Your task to perform on an android device: turn off wifi Image 0: 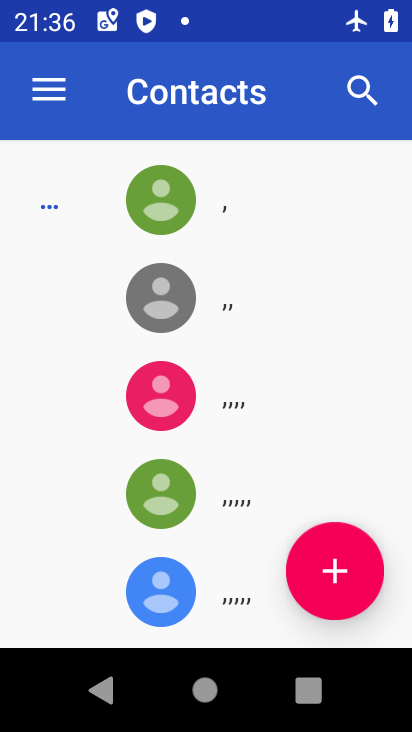
Step 0: press home button
Your task to perform on an android device: turn off wifi Image 1: 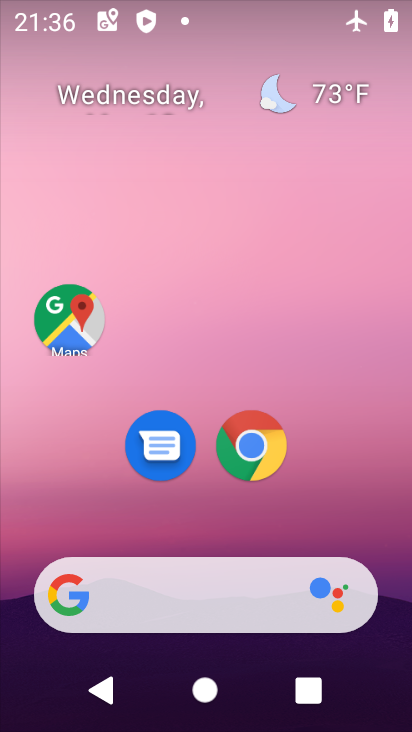
Step 1: drag from (236, 483) to (261, 128)
Your task to perform on an android device: turn off wifi Image 2: 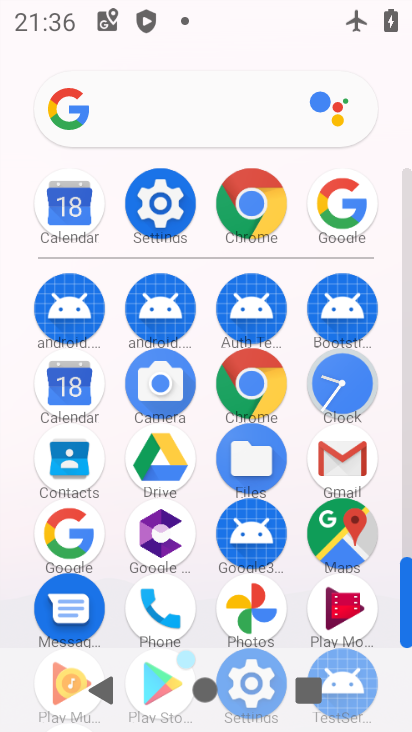
Step 2: click (151, 203)
Your task to perform on an android device: turn off wifi Image 3: 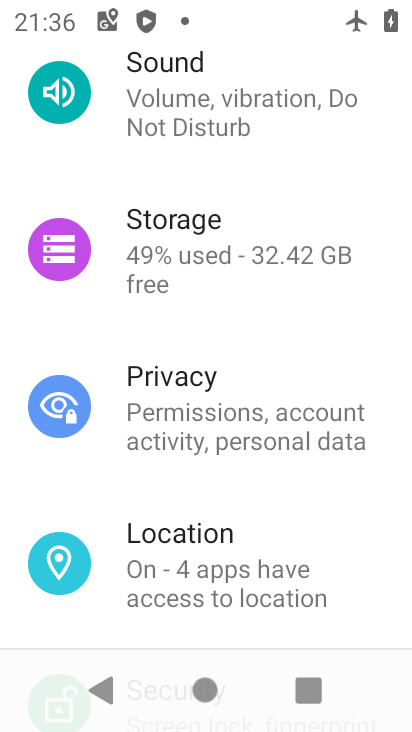
Step 3: drag from (267, 121) to (275, 603)
Your task to perform on an android device: turn off wifi Image 4: 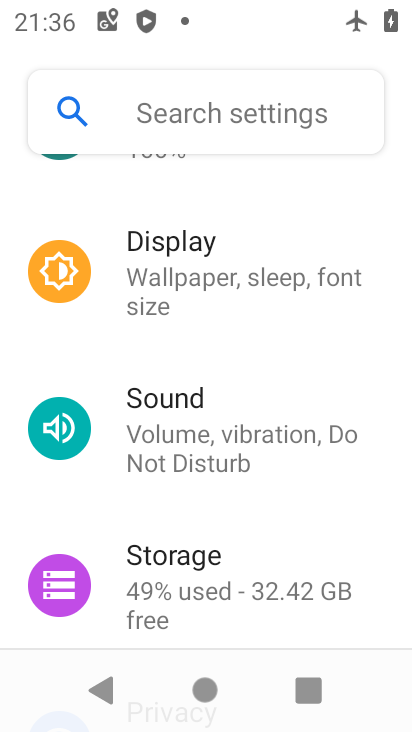
Step 4: drag from (214, 271) to (249, 598)
Your task to perform on an android device: turn off wifi Image 5: 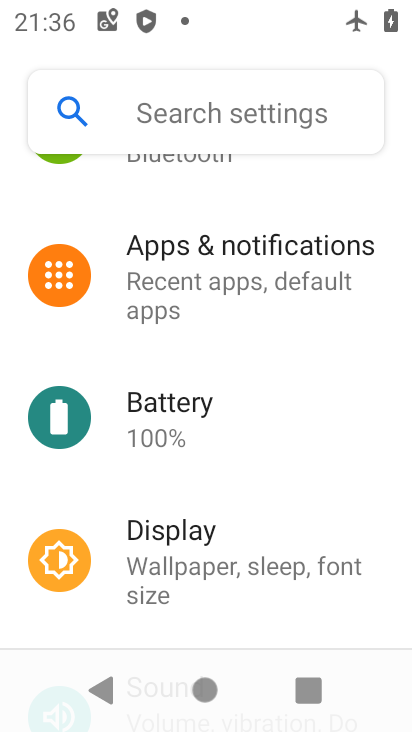
Step 5: drag from (246, 231) to (246, 282)
Your task to perform on an android device: turn off wifi Image 6: 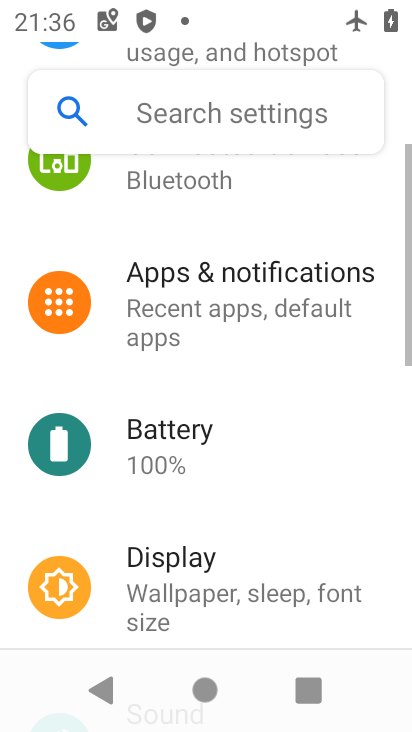
Step 6: drag from (247, 298) to (258, 426)
Your task to perform on an android device: turn off wifi Image 7: 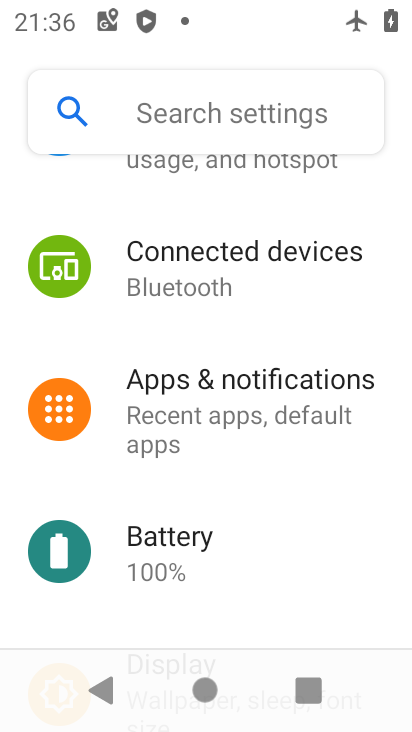
Step 7: drag from (277, 203) to (329, 581)
Your task to perform on an android device: turn off wifi Image 8: 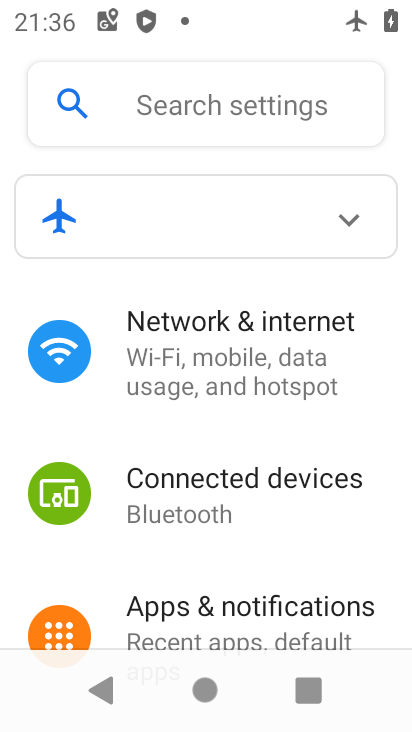
Step 8: click (262, 373)
Your task to perform on an android device: turn off wifi Image 9: 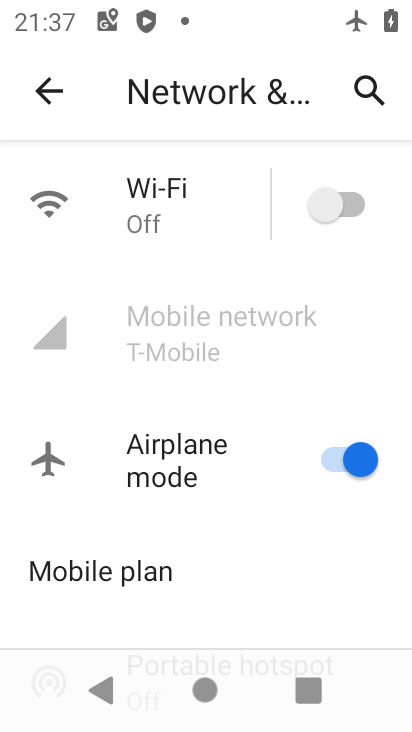
Step 9: task complete